Your task to perform on an android device: delete location history Image 0: 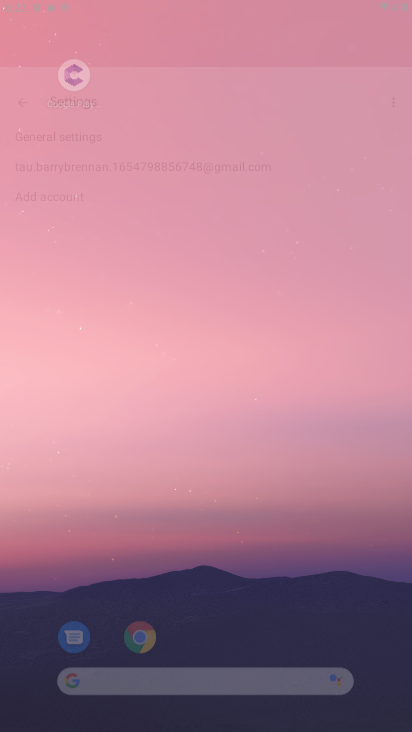
Step 0: drag from (320, 139) to (320, 71)
Your task to perform on an android device: delete location history Image 1: 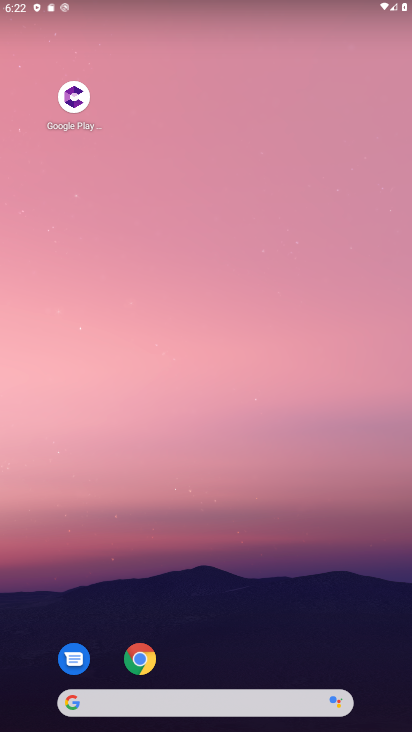
Step 1: press home button
Your task to perform on an android device: delete location history Image 2: 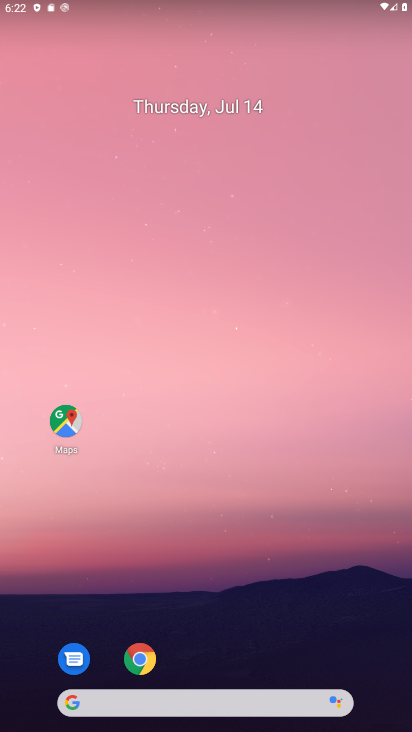
Step 2: drag from (283, 692) to (331, 6)
Your task to perform on an android device: delete location history Image 3: 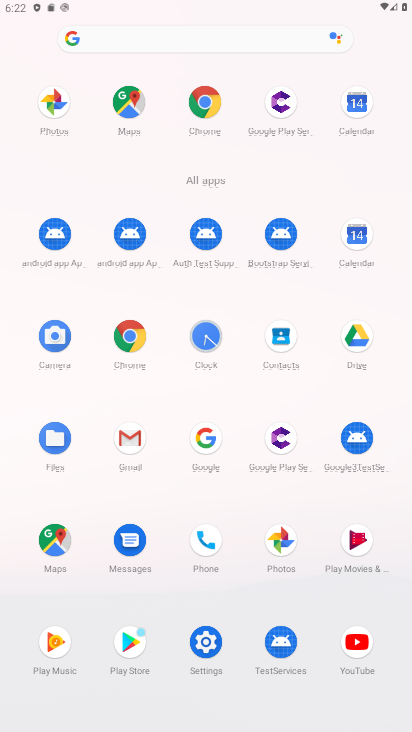
Step 3: click (215, 646)
Your task to perform on an android device: delete location history Image 4: 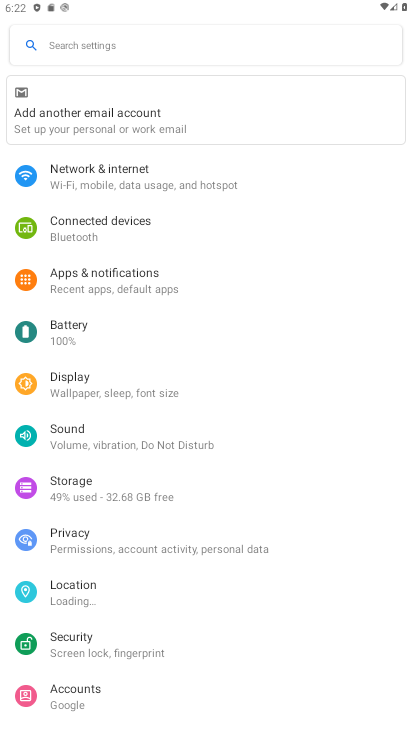
Step 4: press home button
Your task to perform on an android device: delete location history Image 5: 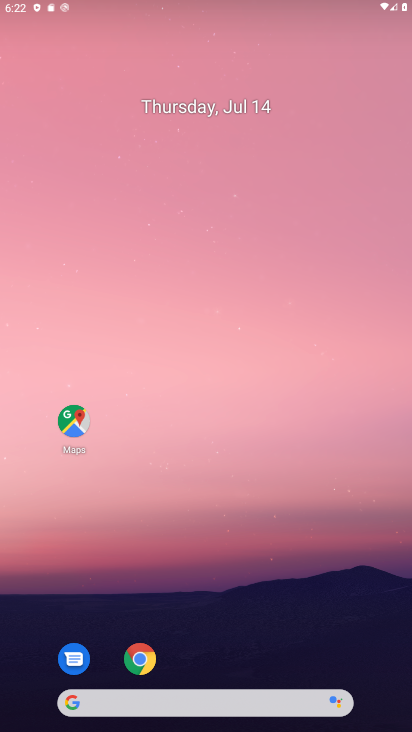
Step 5: drag from (150, 641) to (169, 31)
Your task to perform on an android device: delete location history Image 6: 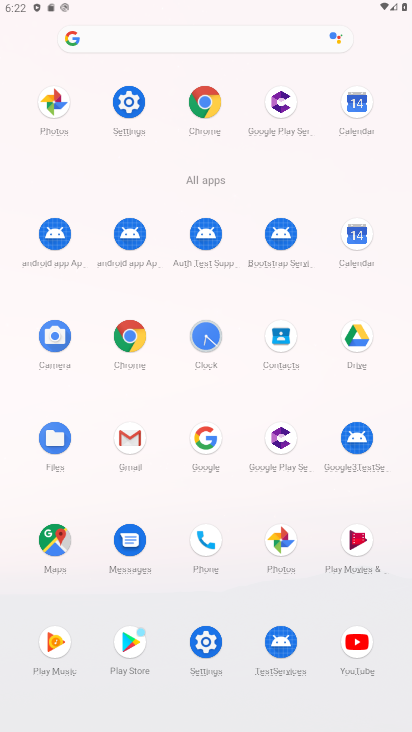
Step 6: click (55, 532)
Your task to perform on an android device: delete location history Image 7: 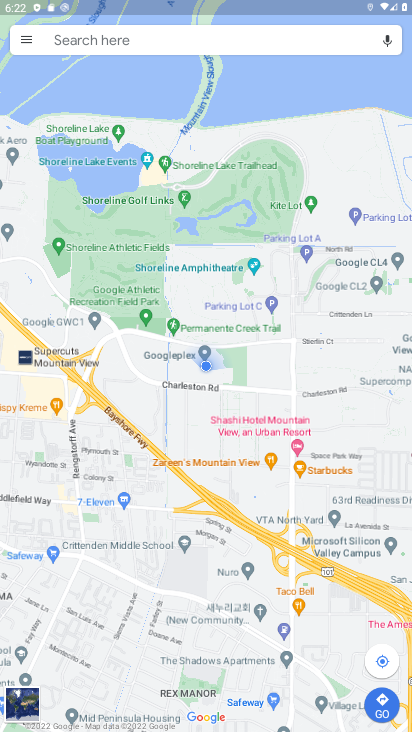
Step 7: click (25, 44)
Your task to perform on an android device: delete location history Image 8: 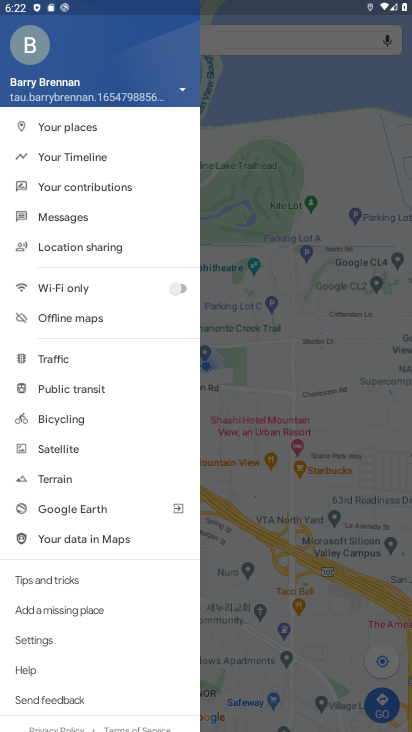
Step 8: click (102, 157)
Your task to perform on an android device: delete location history Image 9: 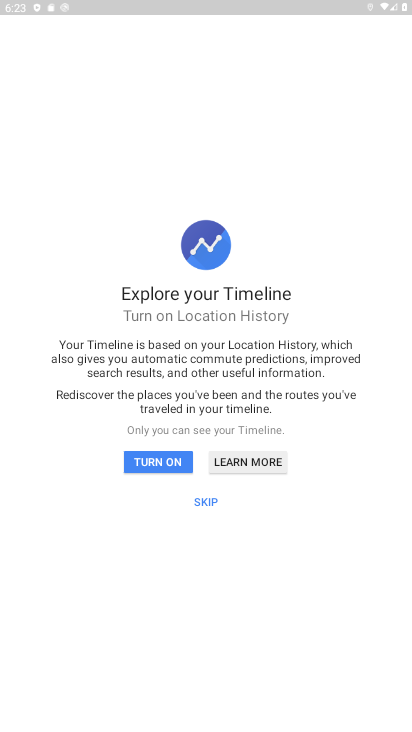
Step 9: click (201, 500)
Your task to perform on an android device: delete location history Image 10: 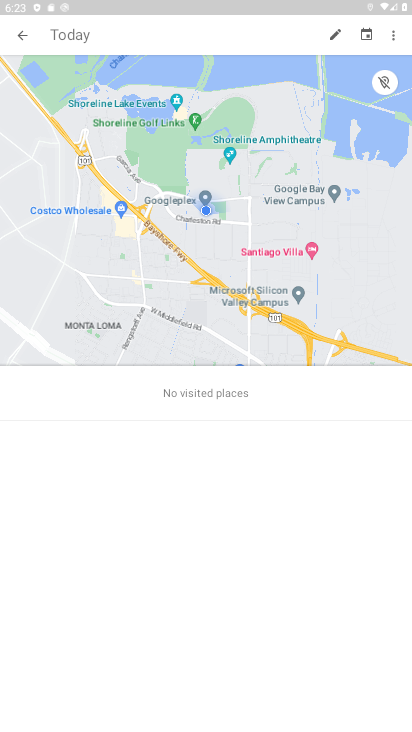
Step 10: click (394, 34)
Your task to perform on an android device: delete location history Image 11: 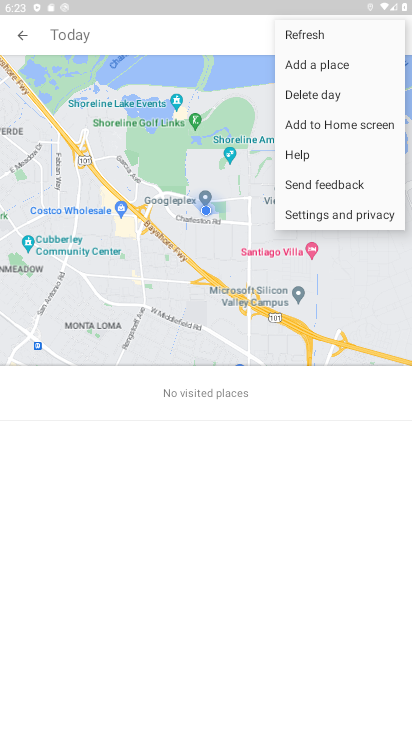
Step 11: click (344, 208)
Your task to perform on an android device: delete location history Image 12: 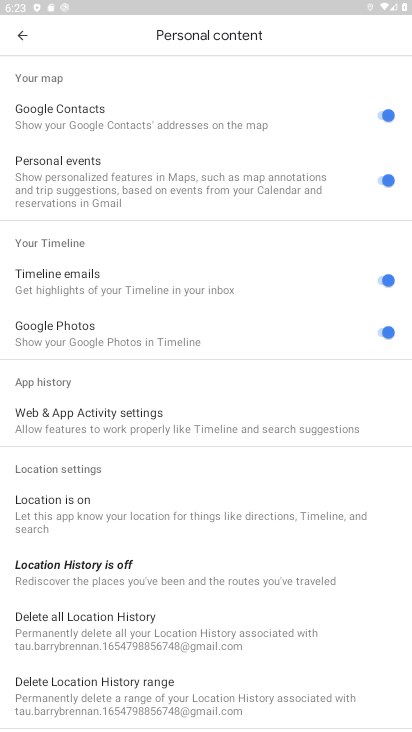
Step 12: click (136, 611)
Your task to perform on an android device: delete location history Image 13: 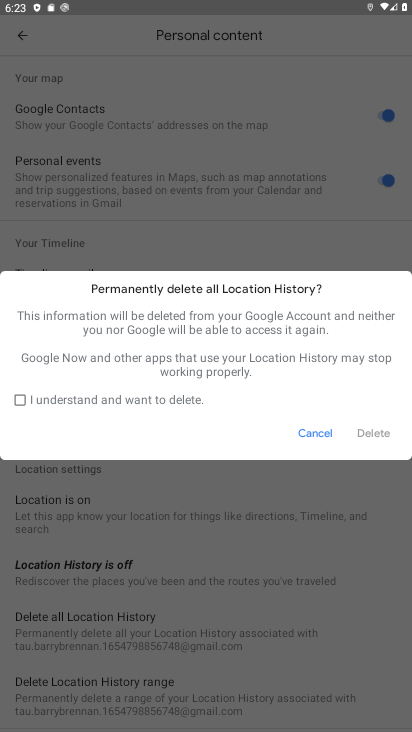
Step 13: click (18, 398)
Your task to perform on an android device: delete location history Image 14: 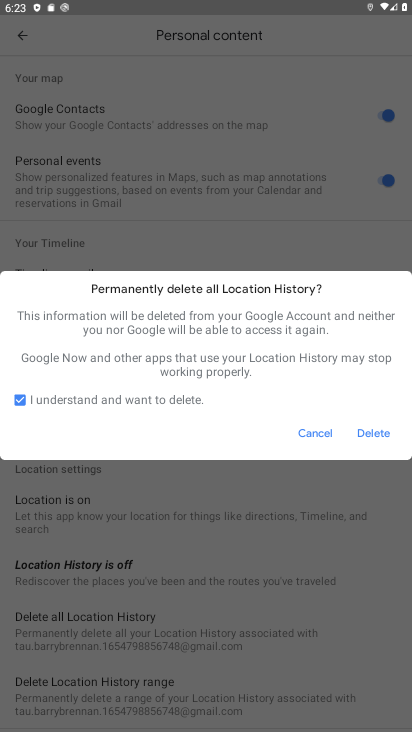
Step 14: click (364, 435)
Your task to perform on an android device: delete location history Image 15: 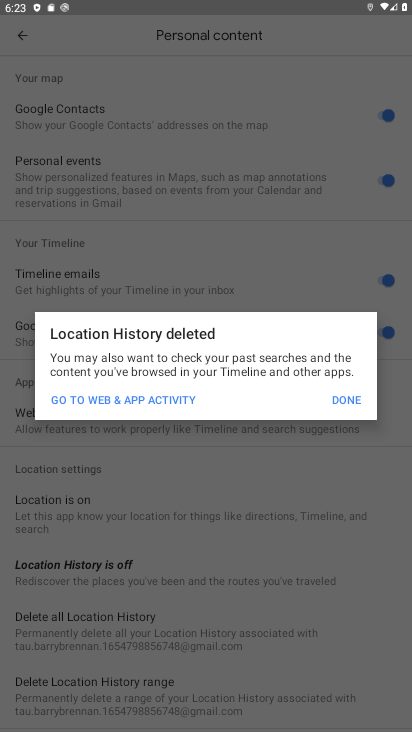
Step 15: click (348, 395)
Your task to perform on an android device: delete location history Image 16: 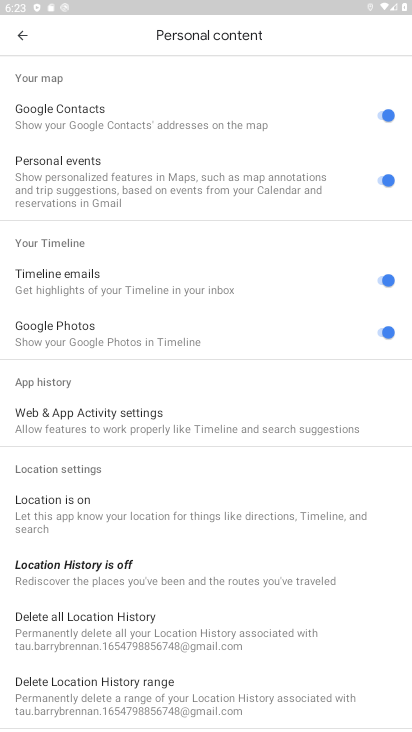
Step 16: task complete